Your task to perform on an android device: What's the weather going to be this weekend? Image 0: 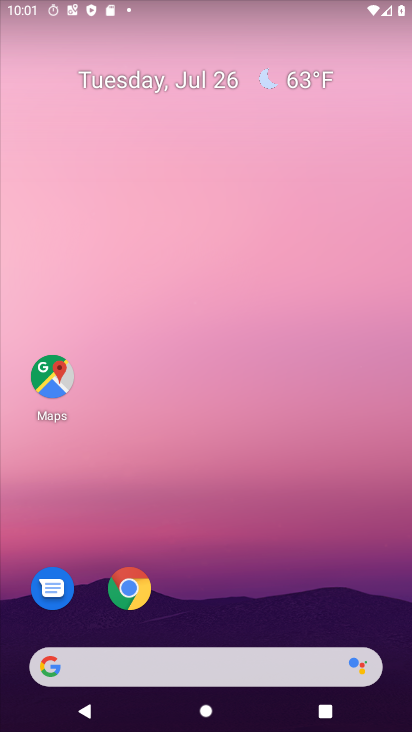
Step 0: click (147, 661)
Your task to perform on an android device: What's the weather going to be this weekend? Image 1: 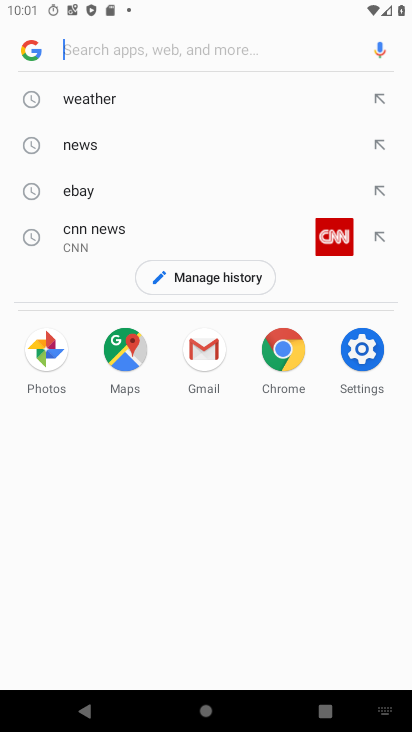
Step 1: click (100, 102)
Your task to perform on an android device: What's the weather going to be this weekend? Image 2: 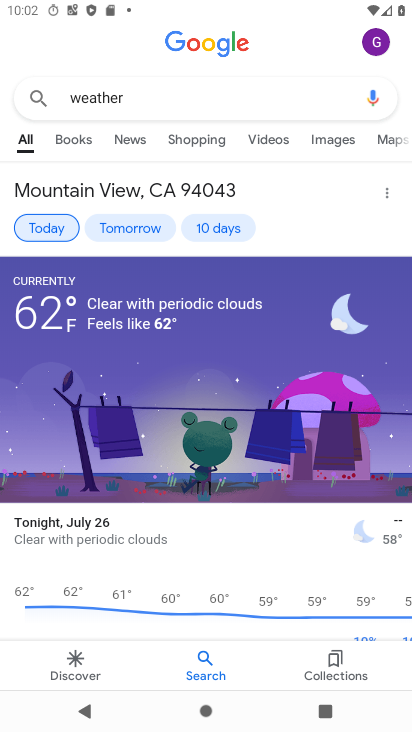
Step 2: drag from (211, 548) to (210, 314)
Your task to perform on an android device: What's the weather going to be this weekend? Image 3: 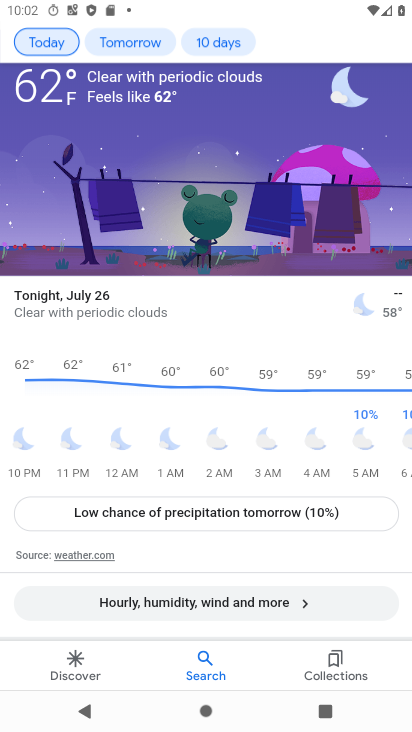
Step 3: drag from (210, 314) to (163, 551)
Your task to perform on an android device: What's the weather going to be this weekend? Image 4: 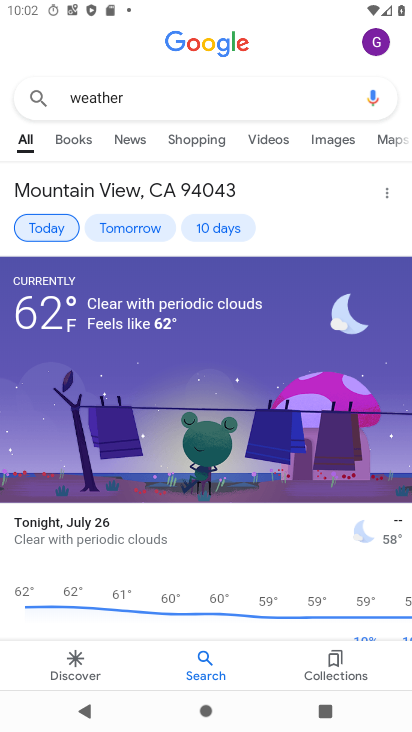
Step 4: click (207, 233)
Your task to perform on an android device: What's the weather going to be this weekend? Image 5: 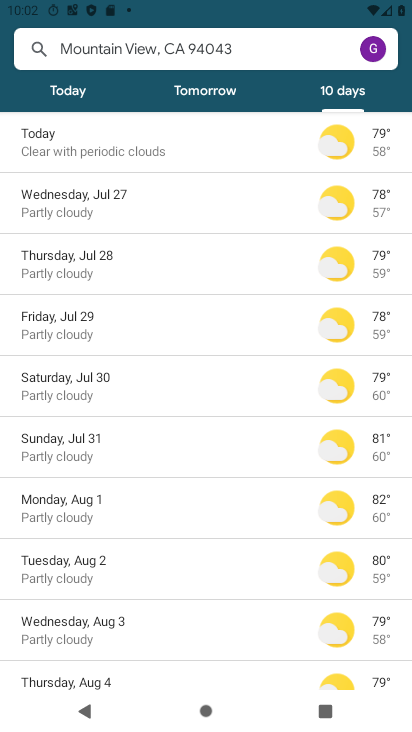
Step 5: click (95, 378)
Your task to perform on an android device: What's the weather going to be this weekend? Image 6: 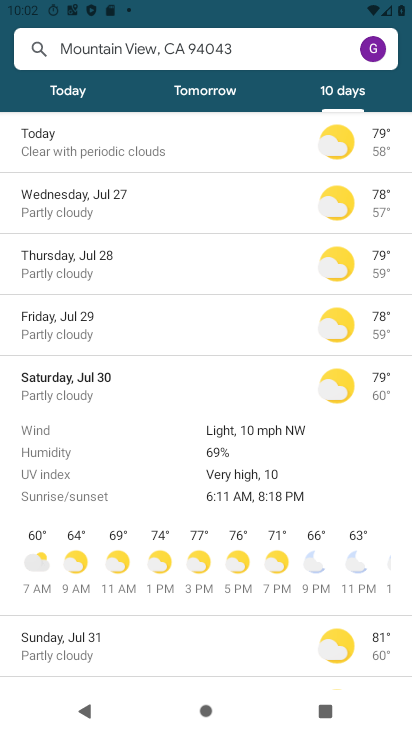
Step 6: task complete